Your task to perform on an android device: toggle location history Image 0: 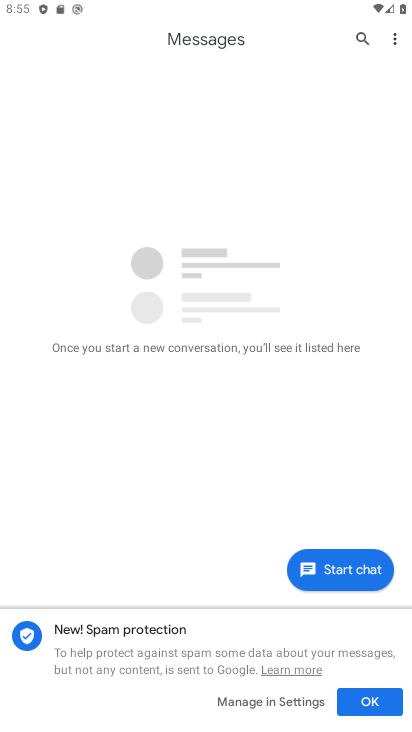
Step 0: press home button
Your task to perform on an android device: toggle location history Image 1: 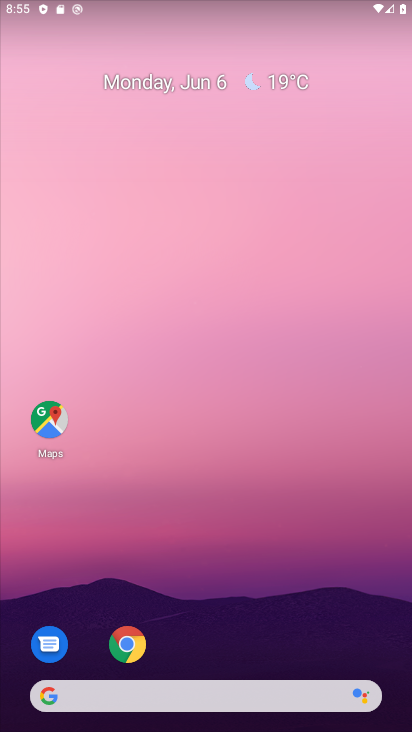
Step 1: drag from (188, 661) to (257, 120)
Your task to perform on an android device: toggle location history Image 2: 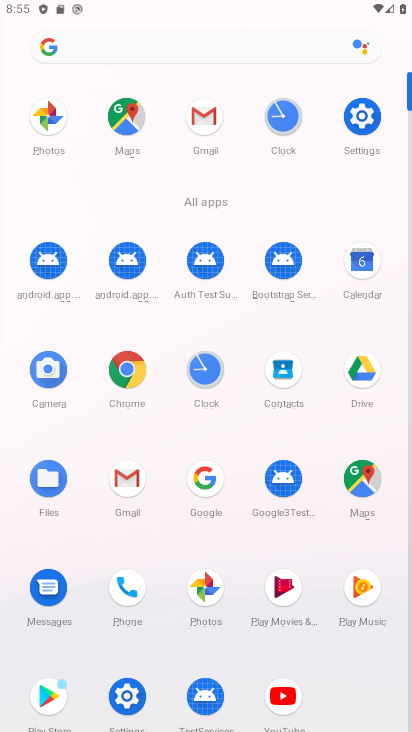
Step 2: click (131, 710)
Your task to perform on an android device: toggle location history Image 3: 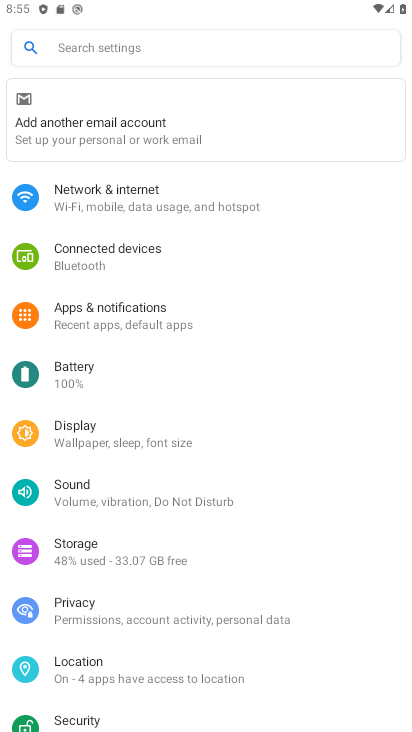
Step 3: click (120, 674)
Your task to perform on an android device: toggle location history Image 4: 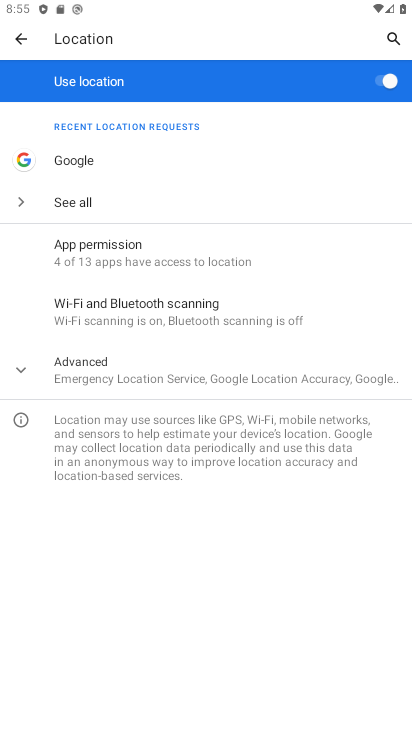
Step 4: click (166, 377)
Your task to perform on an android device: toggle location history Image 5: 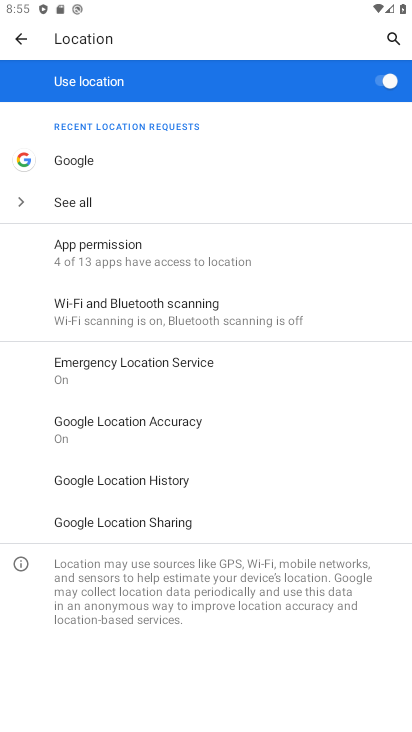
Step 5: click (179, 485)
Your task to perform on an android device: toggle location history Image 6: 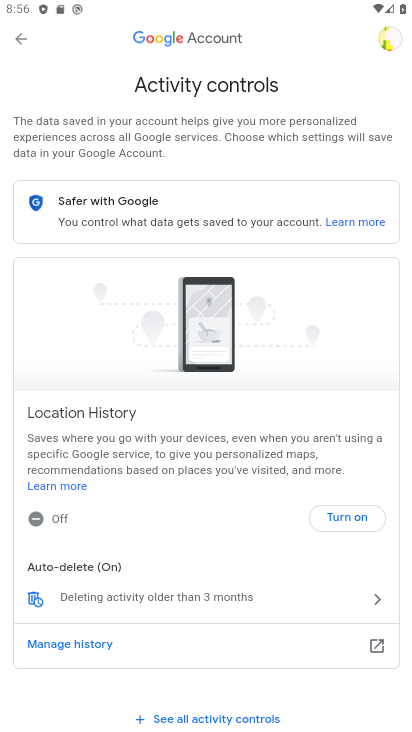
Step 6: click (354, 520)
Your task to perform on an android device: toggle location history Image 7: 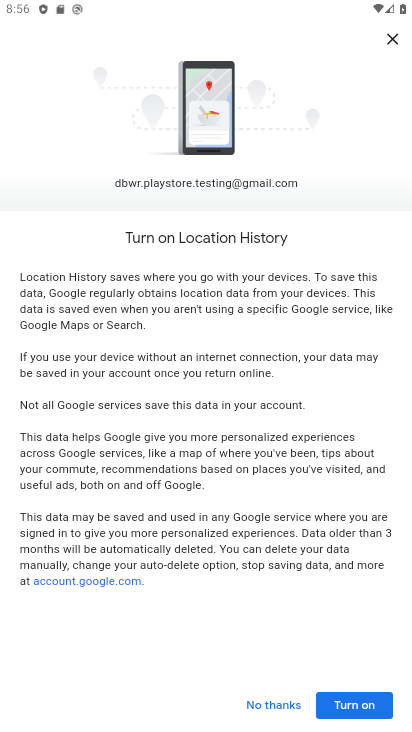
Step 7: click (358, 711)
Your task to perform on an android device: toggle location history Image 8: 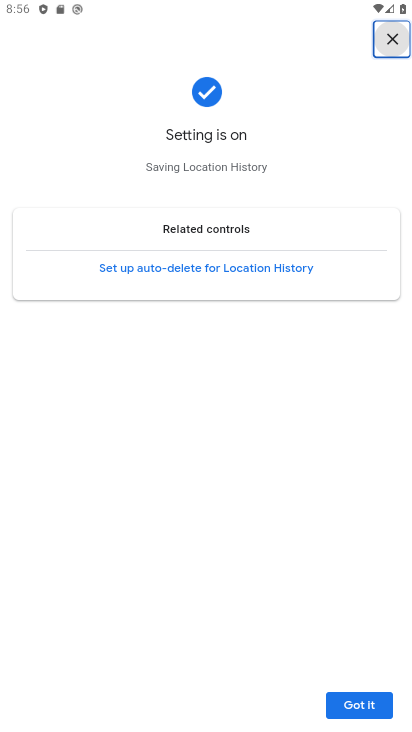
Step 8: click (360, 700)
Your task to perform on an android device: toggle location history Image 9: 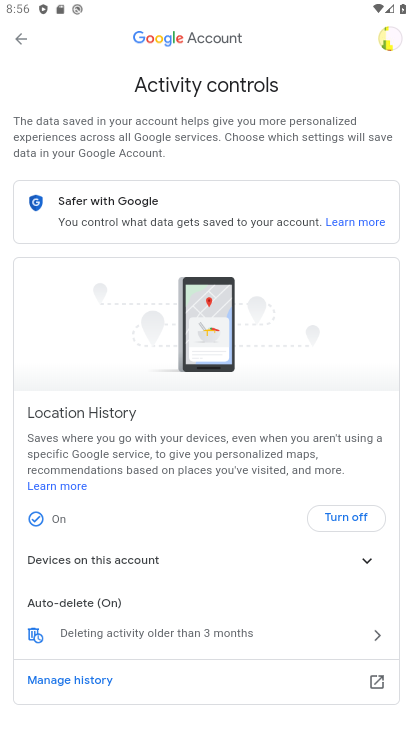
Step 9: task complete